Your task to perform on an android device: open chrome and create a bookmark for the current page Image 0: 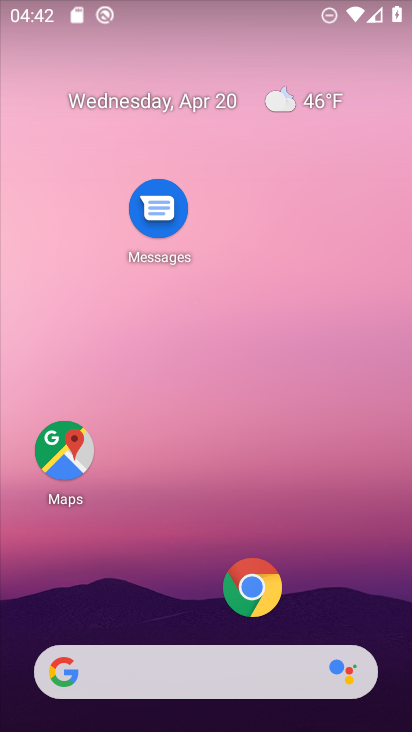
Step 0: click (251, 598)
Your task to perform on an android device: open chrome and create a bookmark for the current page Image 1: 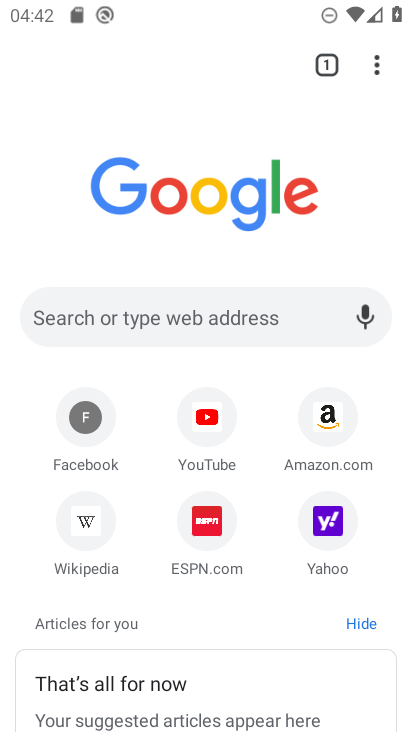
Step 1: click (377, 74)
Your task to perform on an android device: open chrome and create a bookmark for the current page Image 2: 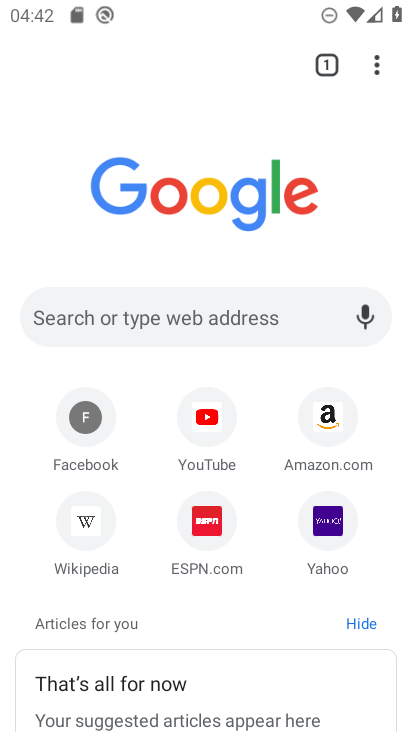
Step 2: drag from (377, 74) to (152, 251)
Your task to perform on an android device: open chrome and create a bookmark for the current page Image 3: 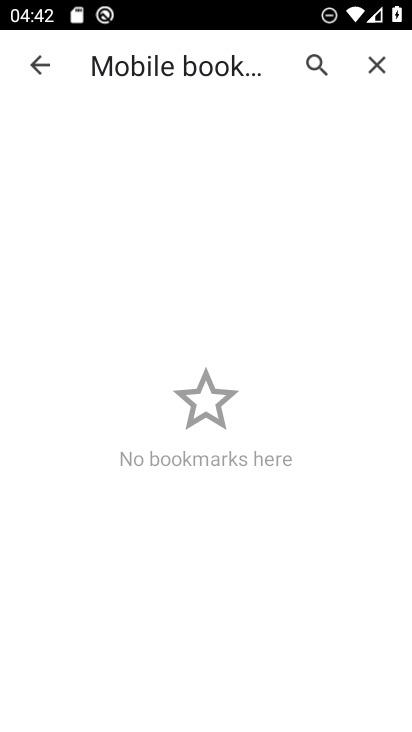
Step 3: click (48, 58)
Your task to perform on an android device: open chrome and create a bookmark for the current page Image 4: 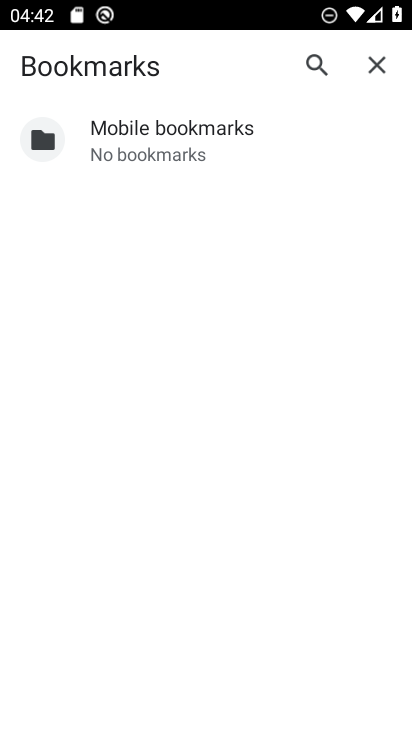
Step 4: click (380, 69)
Your task to perform on an android device: open chrome and create a bookmark for the current page Image 5: 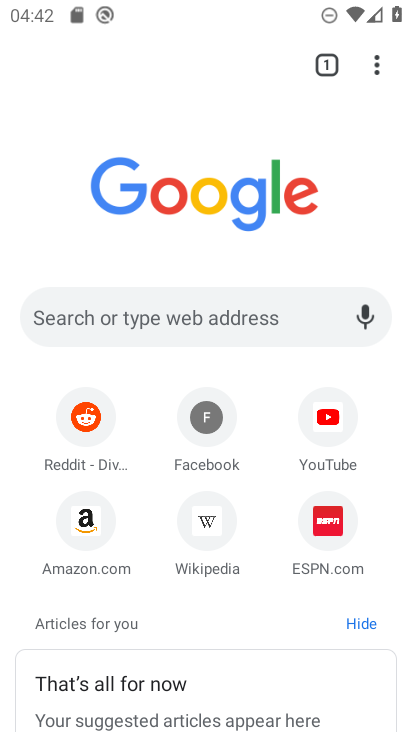
Step 5: click (208, 312)
Your task to perform on an android device: open chrome and create a bookmark for the current page Image 6: 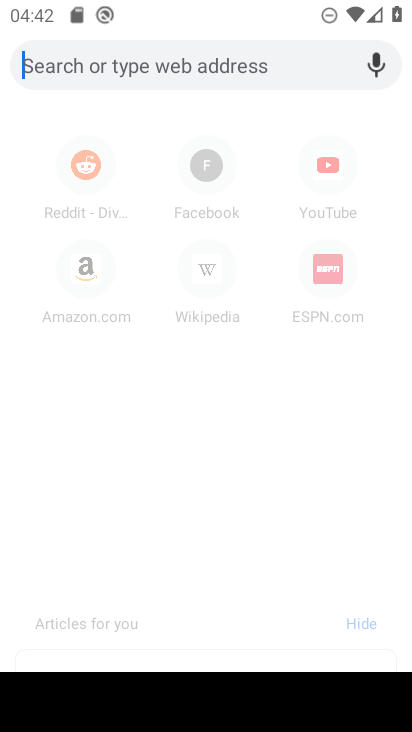
Step 6: type "jfu"
Your task to perform on an android device: open chrome and create a bookmark for the current page Image 7: 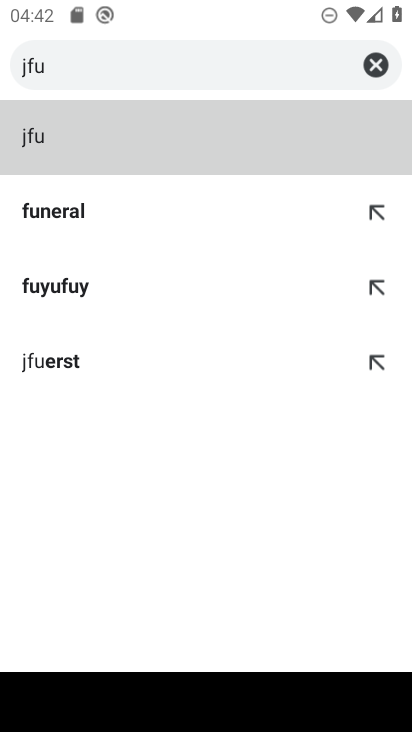
Step 7: click (103, 290)
Your task to perform on an android device: open chrome and create a bookmark for the current page Image 8: 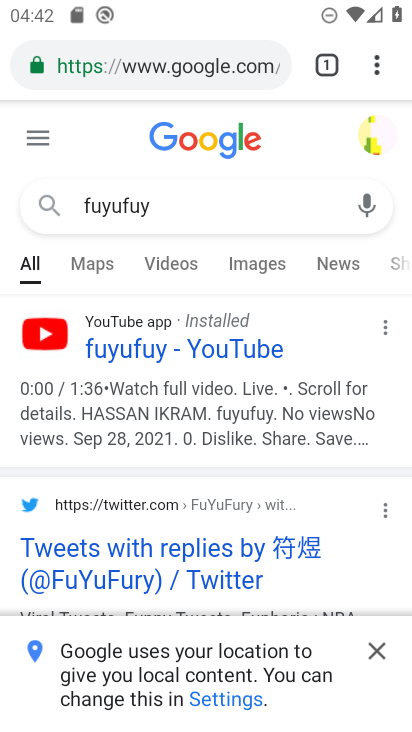
Step 8: drag from (167, 523) to (196, 319)
Your task to perform on an android device: open chrome and create a bookmark for the current page Image 9: 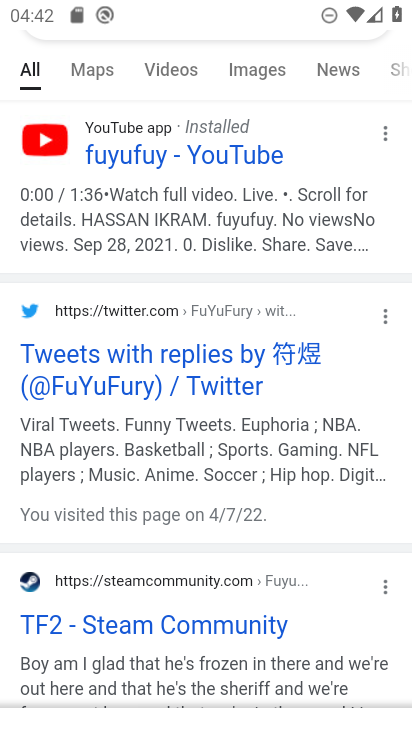
Step 9: click (174, 358)
Your task to perform on an android device: open chrome and create a bookmark for the current page Image 10: 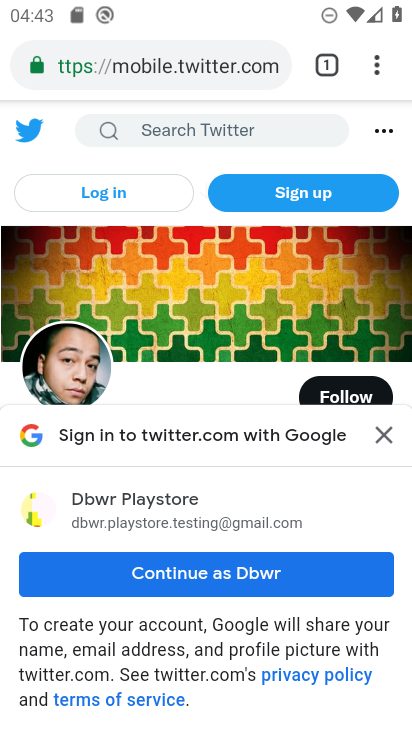
Step 10: click (370, 67)
Your task to perform on an android device: open chrome and create a bookmark for the current page Image 11: 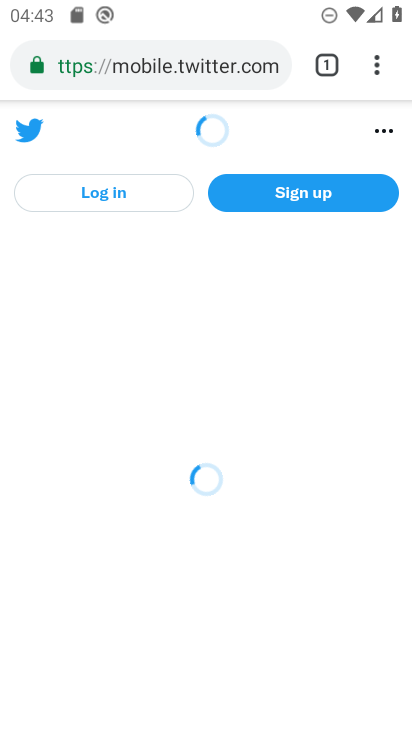
Step 11: click (373, 62)
Your task to perform on an android device: open chrome and create a bookmark for the current page Image 12: 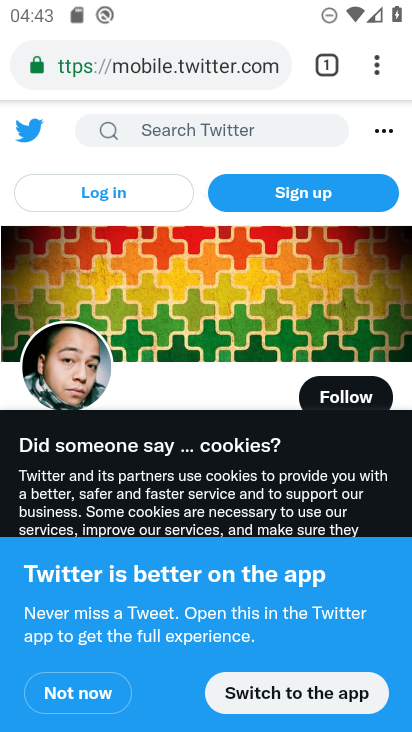
Step 12: click (370, 61)
Your task to perform on an android device: open chrome and create a bookmark for the current page Image 13: 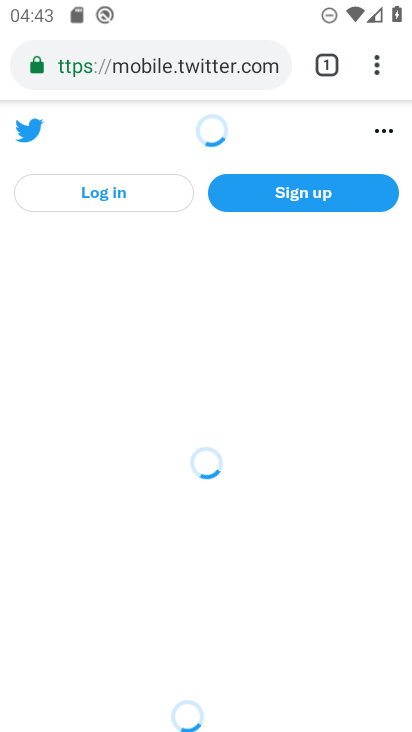
Step 13: task complete